Your task to perform on an android device: Search for Mexican restaurants on Maps Image 0: 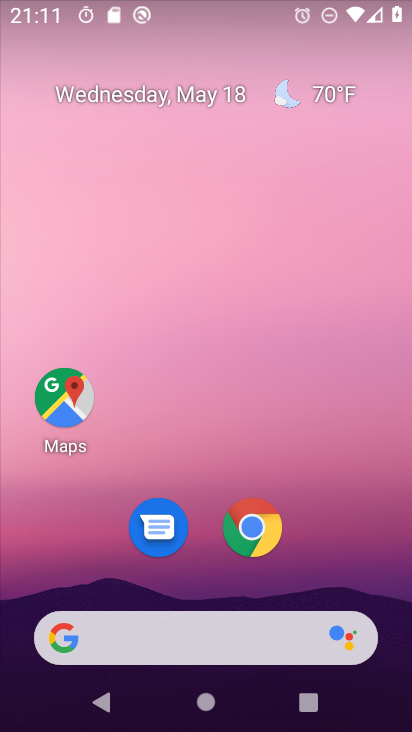
Step 0: drag from (395, 674) to (386, 216)
Your task to perform on an android device: Search for Mexican restaurants on Maps Image 1: 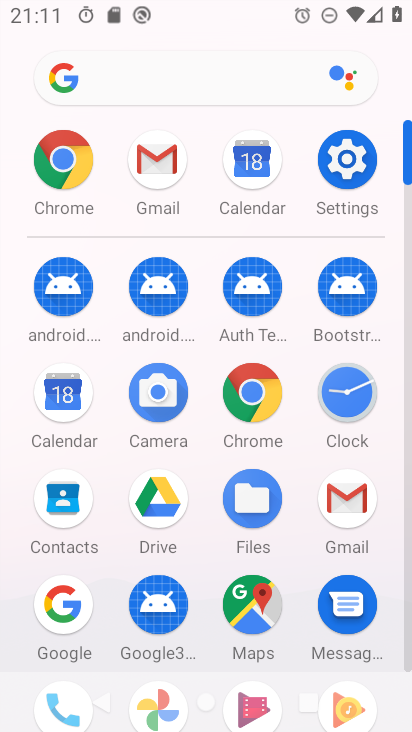
Step 1: click (238, 598)
Your task to perform on an android device: Search for Mexican restaurants on Maps Image 2: 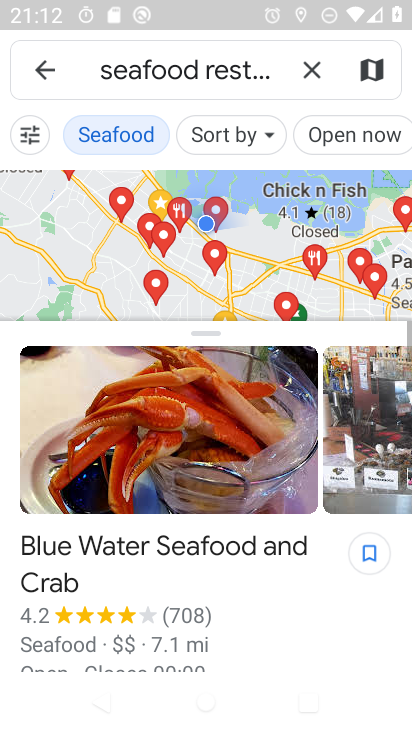
Step 2: click (308, 69)
Your task to perform on an android device: Search for Mexican restaurants on Maps Image 3: 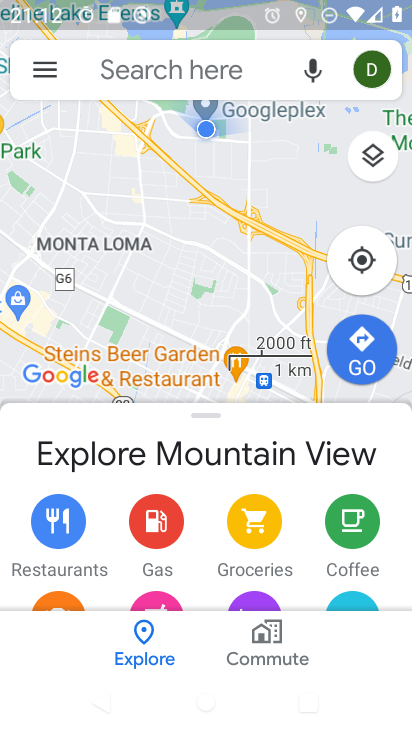
Step 3: click (114, 69)
Your task to perform on an android device: Search for Mexican restaurants on Maps Image 4: 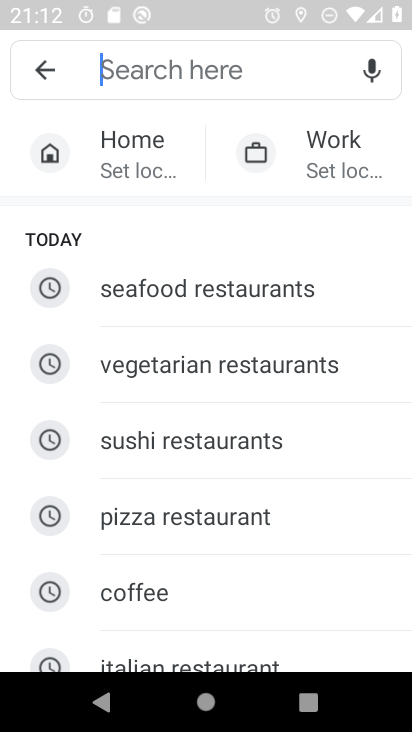
Step 4: click (159, 71)
Your task to perform on an android device: Search for Mexican restaurants on Maps Image 5: 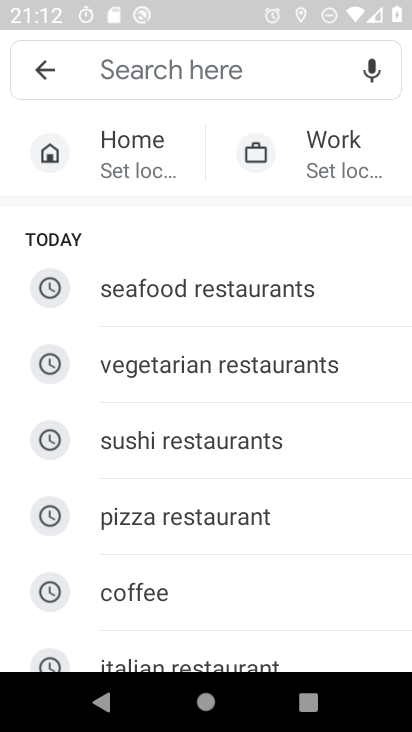
Step 5: click (159, 76)
Your task to perform on an android device: Search for Mexican restaurants on Maps Image 6: 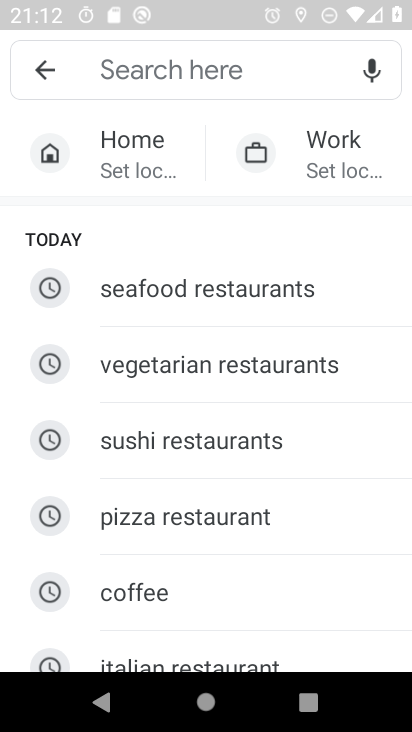
Step 6: type "Mexican restaurants"
Your task to perform on an android device: Search for Mexican restaurants on Maps Image 7: 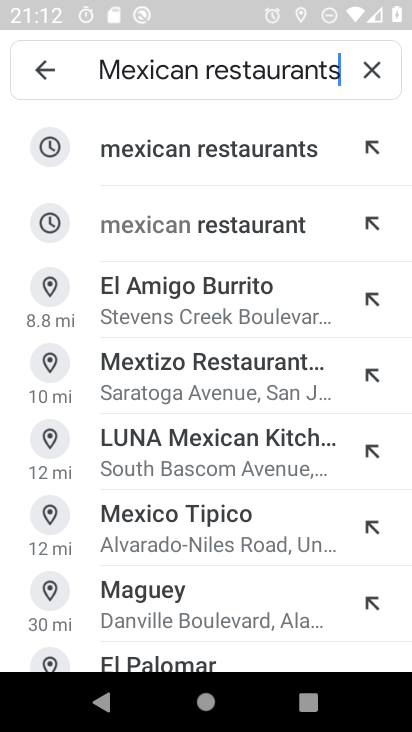
Step 7: click (241, 143)
Your task to perform on an android device: Search for Mexican restaurants on Maps Image 8: 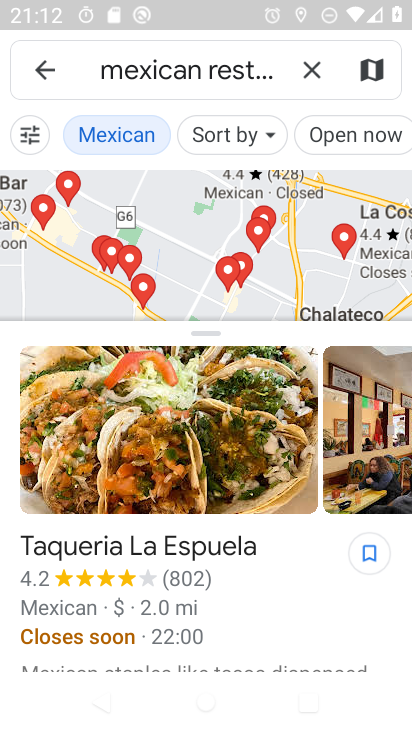
Step 8: task complete